Your task to perform on an android device: star an email in the gmail app Image 0: 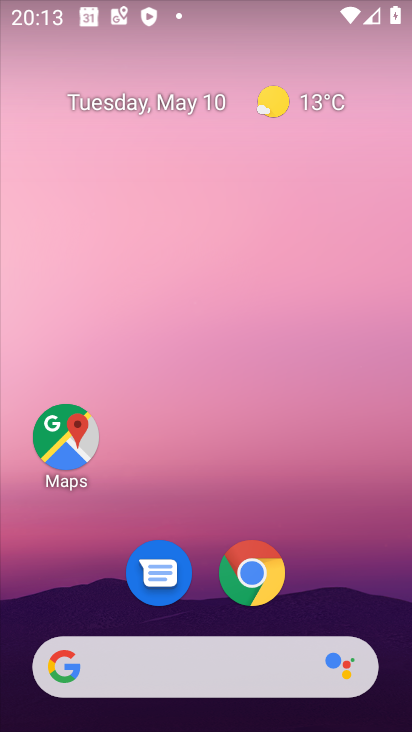
Step 0: drag from (368, 579) to (370, 0)
Your task to perform on an android device: star an email in the gmail app Image 1: 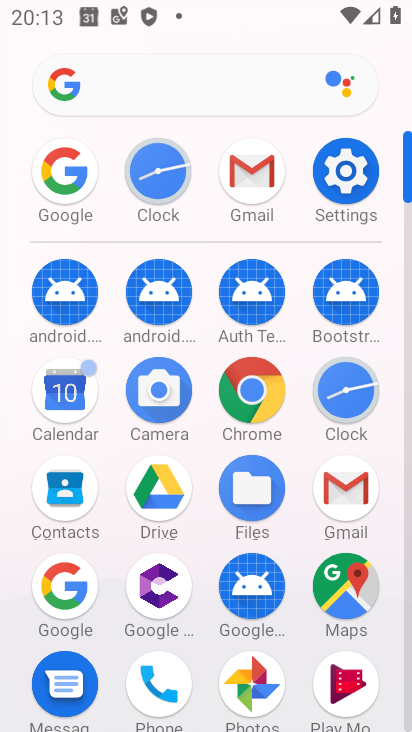
Step 1: click (257, 176)
Your task to perform on an android device: star an email in the gmail app Image 2: 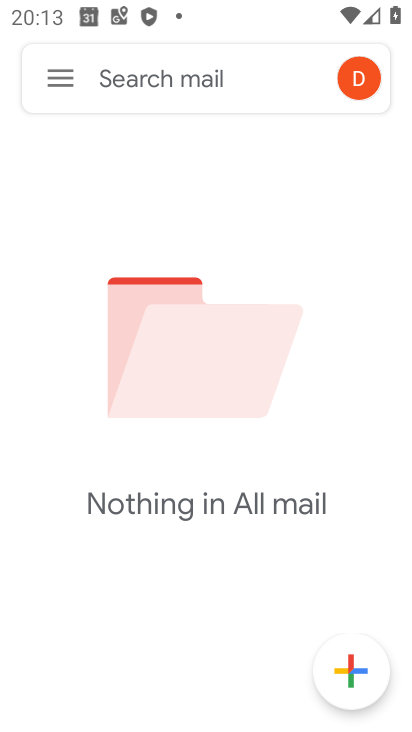
Step 2: task complete